Your task to perform on an android device: Open maps Image 0: 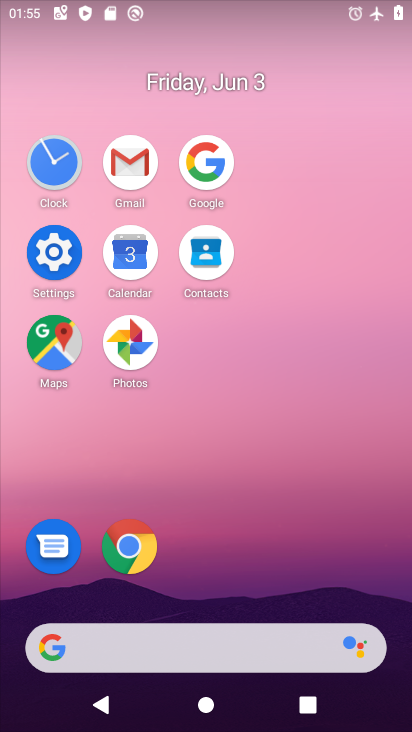
Step 0: click (63, 347)
Your task to perform on an android device: Open maps Image 1: 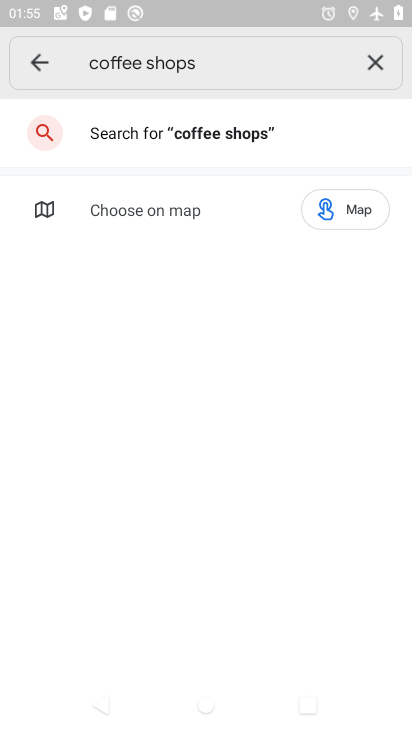
Step 1: task complete